Your task to perform on an android device: turn pop-ups on in chrome Image 0: 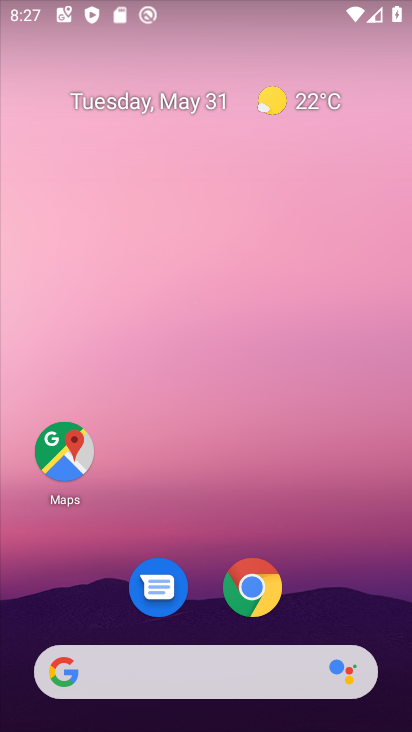
Step 0: click (264, 576)
Your task to perform on an android device: turn pop-ups on in chrome Image 1: 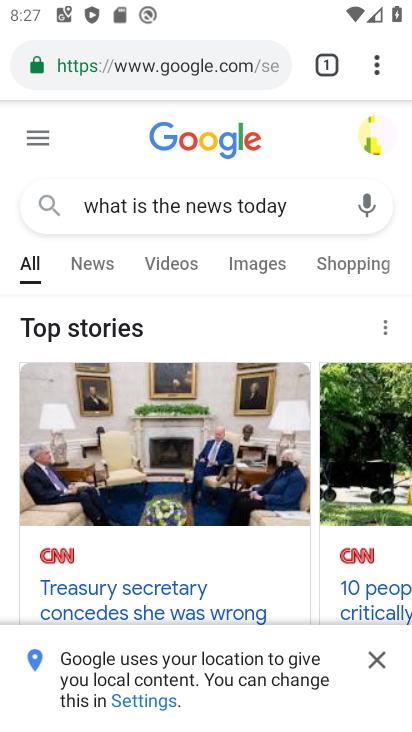
Step 1: click (389, 59)
Your task to perform on an android device: turn pop-ups on in chrome Image 2: 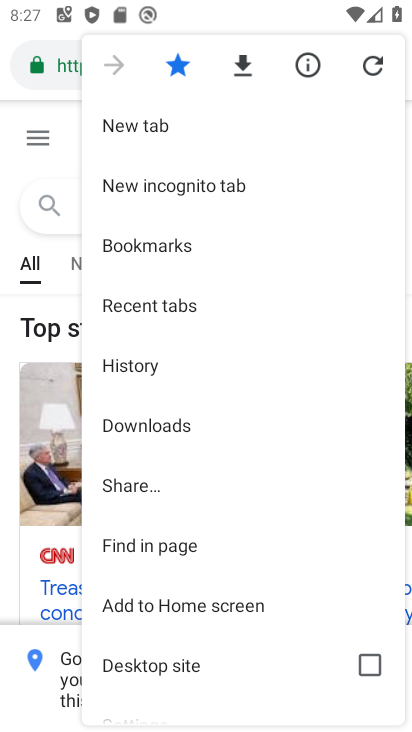
Step 2: drag from (184, 678) to (240, 157)
Your task to perform on an android device: turn pop-ups on in chrome Image 3: 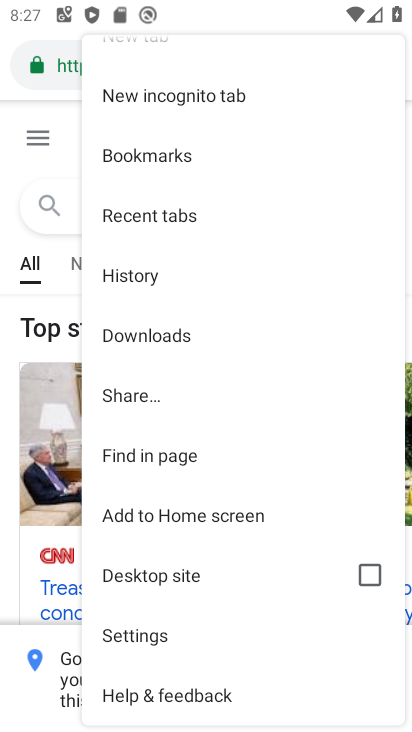
Step 3: click (137, 624)
Your task to perform on an android device: turn pop-ups on in chrome Image 4: 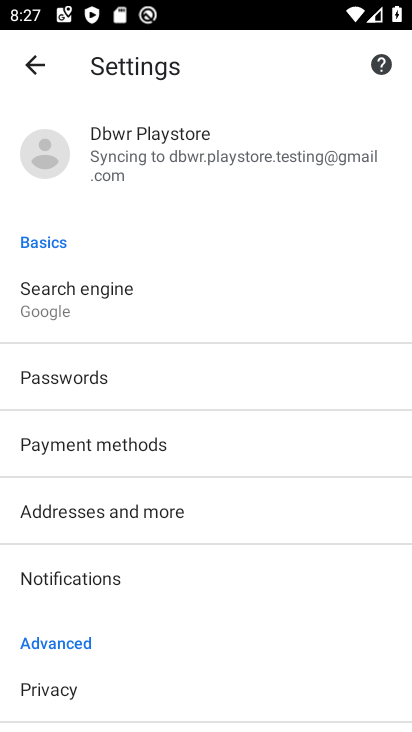
Step 4: drag from (137, 624) to (238, 160)
Your task to perform on an android device: turn pop-ups on in chrome Image 5: 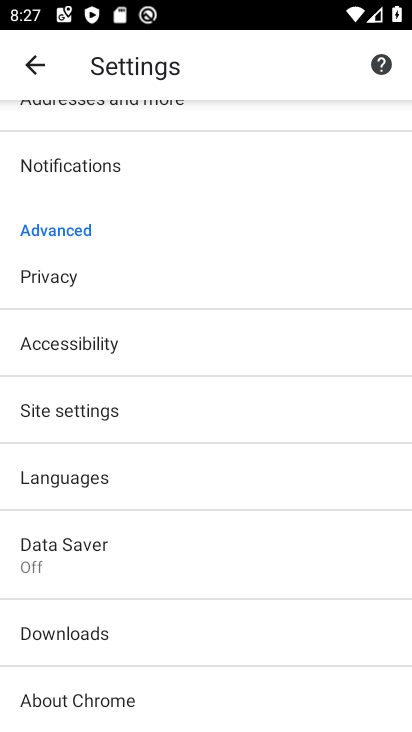
Step 5: click (141, 419)
Your task to perform on an android device: turn pop-ups on in chrome Image 6: 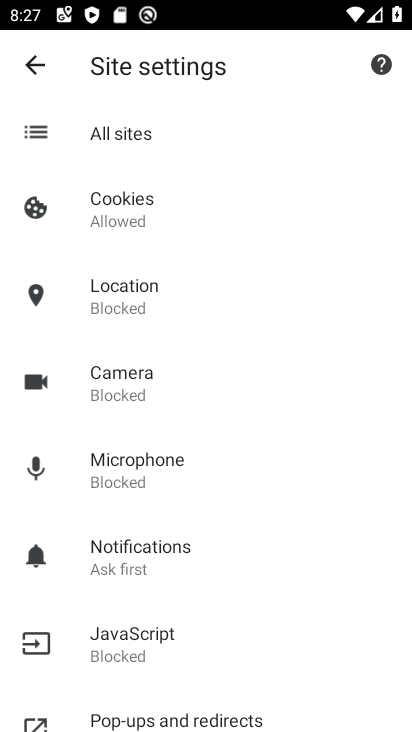
Step 6: click (146, 720)
Your task to perform on an android device: turn pop-ups on in chrome Image 7: 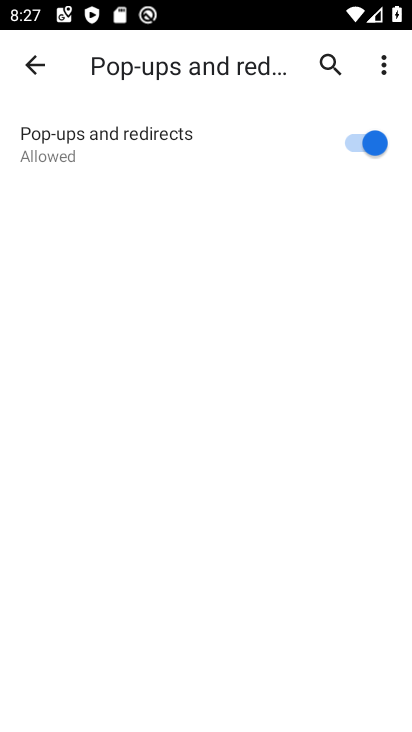
Step 7: task complete